Your task to perform on an android device: set default search engine in the chrome app Image 0: 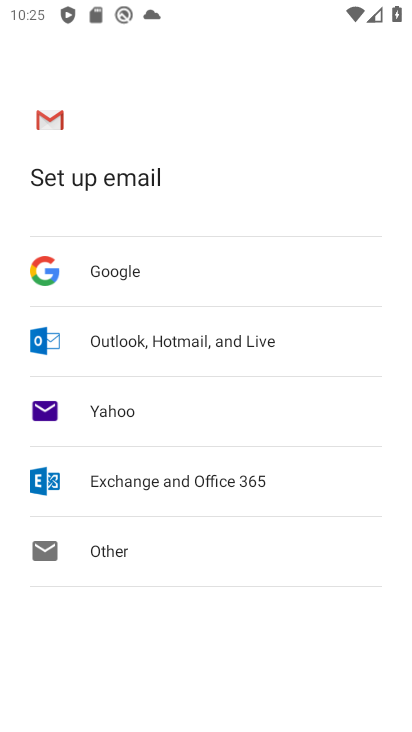
Step 0: press home button
Your task to perform on an android device: set default search engine in the chrome app Image 1: 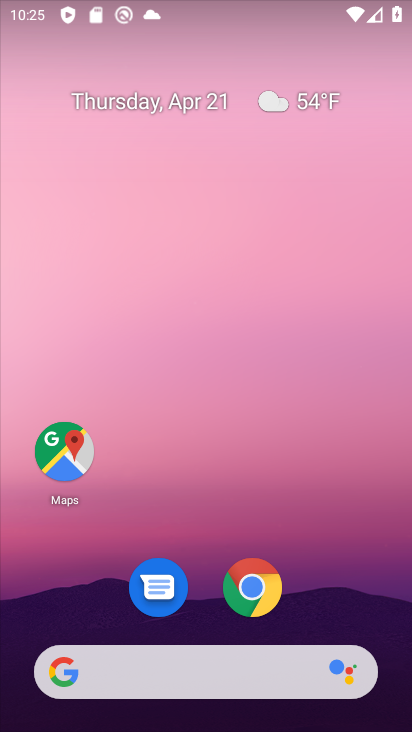
Step 1: click (251, 602)
Your task to perform on an android device: set default search engine in the chrome app Image 2: 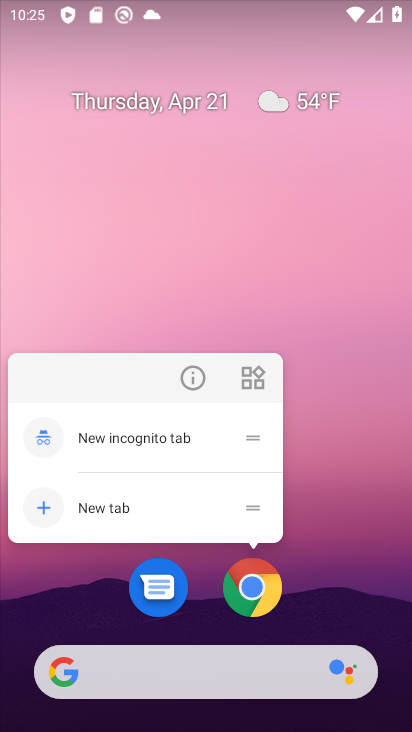
Step 2: click (249, 581)
Your task to perform on an android device: set default search engine in the chrome app Image 3: 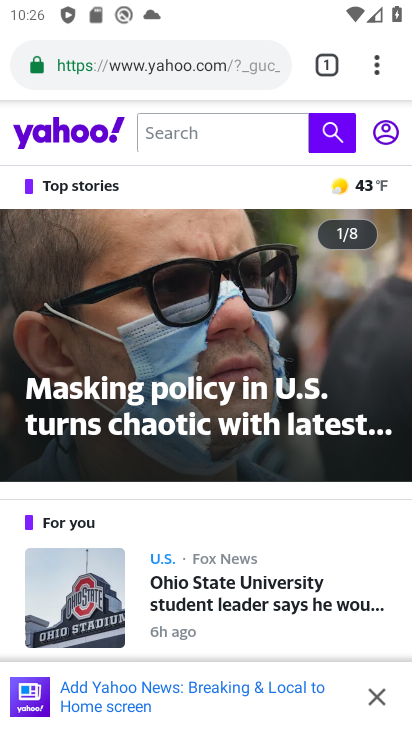
Step 3: click (385, 61)
Your task to perform on an android device: set default search engine in the chrome app Image 4: 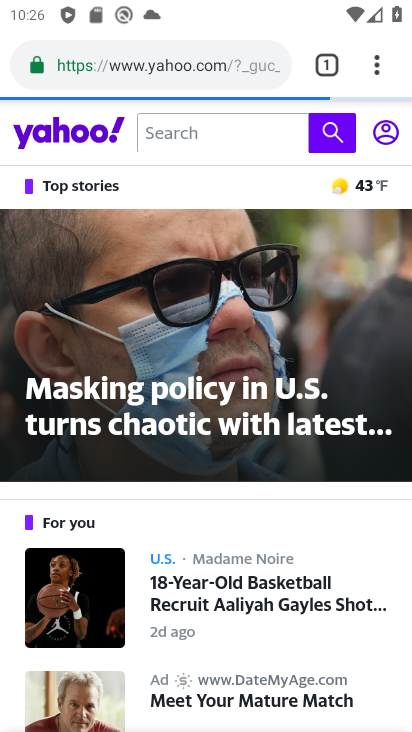
Step 4: drag from (372, 63) to (192, 640)
Your task to perform on an android device: set default search engine in the chrome app Image 5: 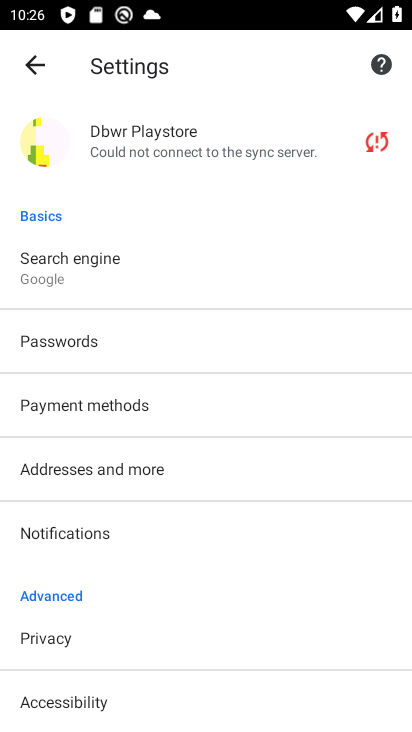
Step 5: click (108, 260)
Your task to perform on an android device: set default search engine in the chrome app Image 6: 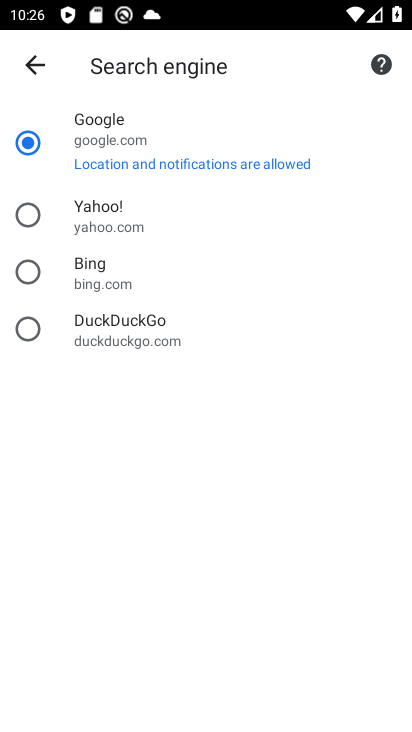
Step 6: click (99, 263)
Your task to perform on an android device: set default search engine in the chrome app Image 7: 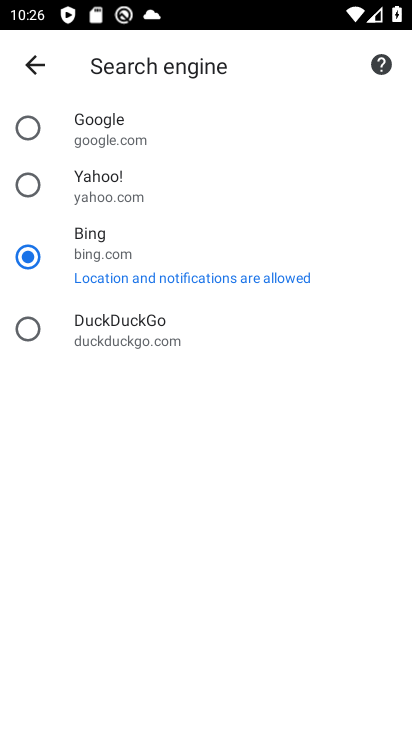
Step 7: task complete